Your task to perform on an android device: Go to CNN.com Image 0: 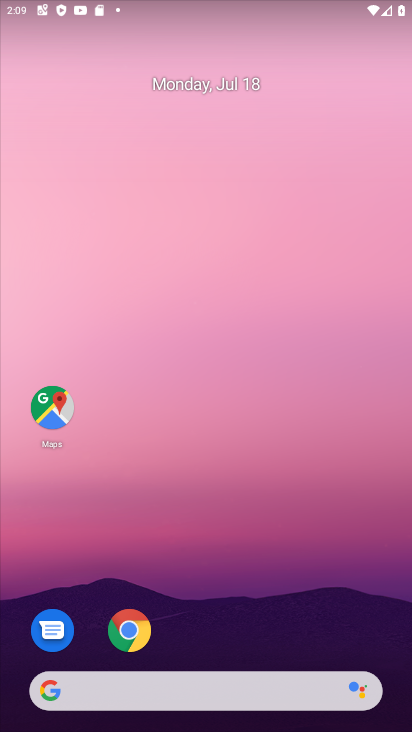
Step 0: click (130, 630)
Your task to perform on an android device: Go to CNN.com Image 1: 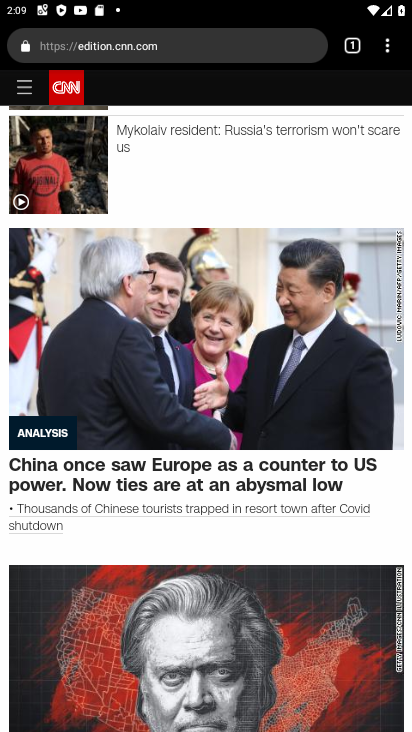
Step 1: task complete